Your task to perform on an android device: Clear the cart on bestbuy. Image 0: 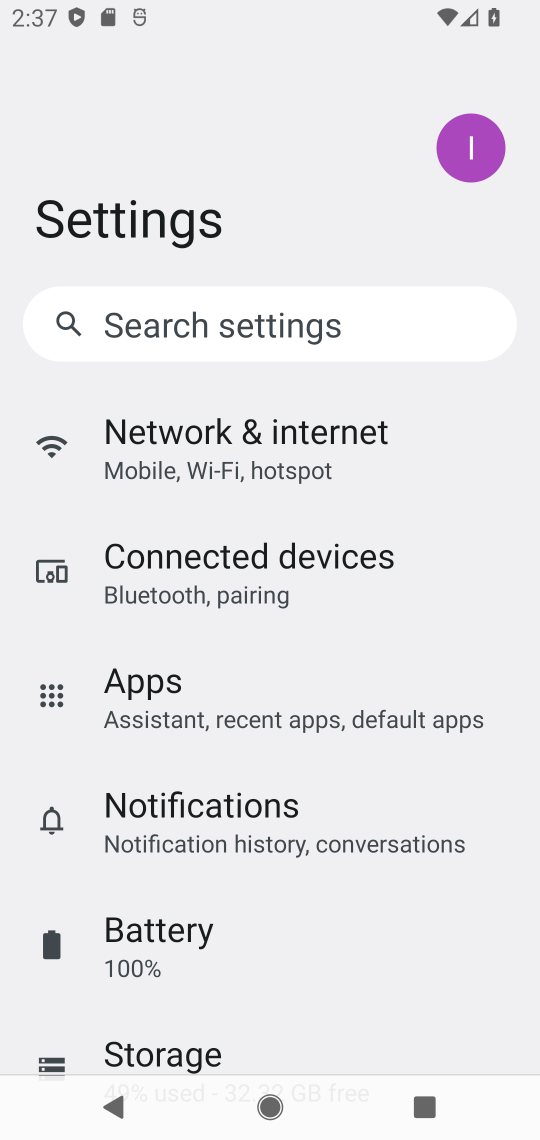
Step 0: press home button
Your task to perform on an android device: Clear the cart on bestbuy. Image 1: 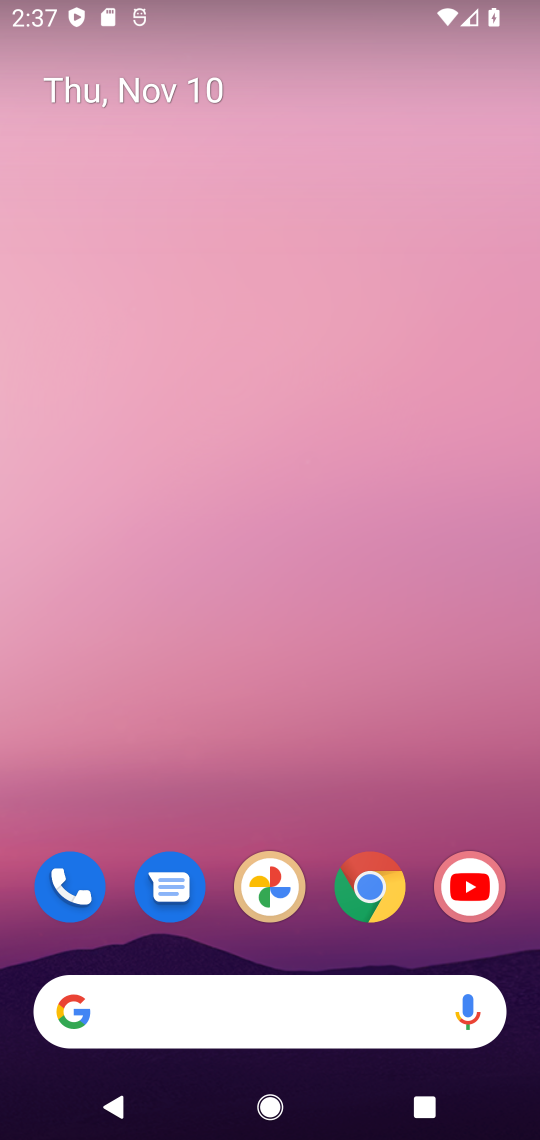
Step 1: drag from (319, 964) to (467, 0)
Your task to perform on an android device: Clear the cart on bestbuy. Image 2: 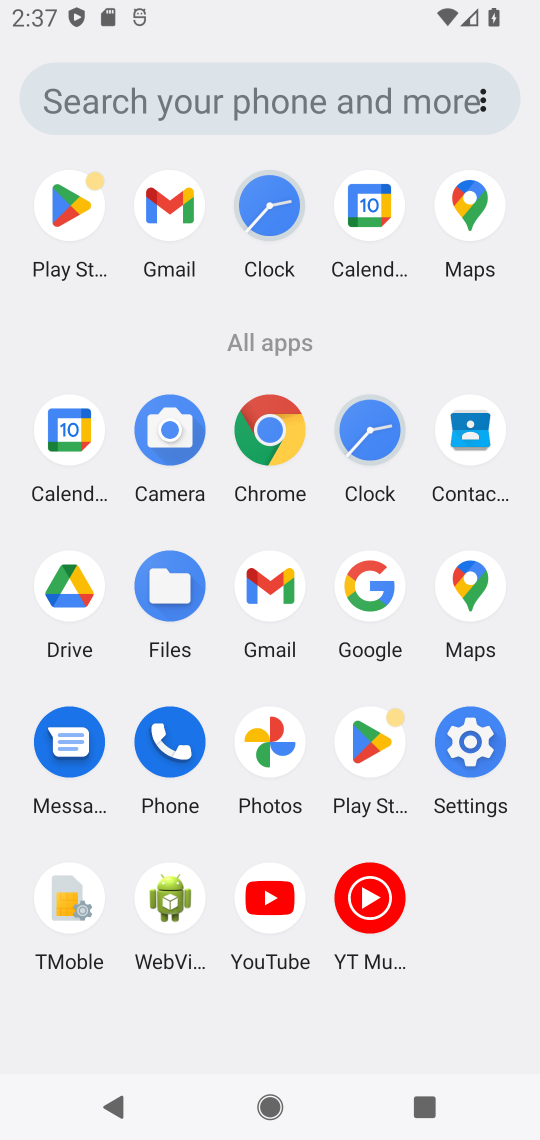
Step 2: click (271, 430)
Your task to perform on an android device: Clear the cart on bestbuy. Image 3: 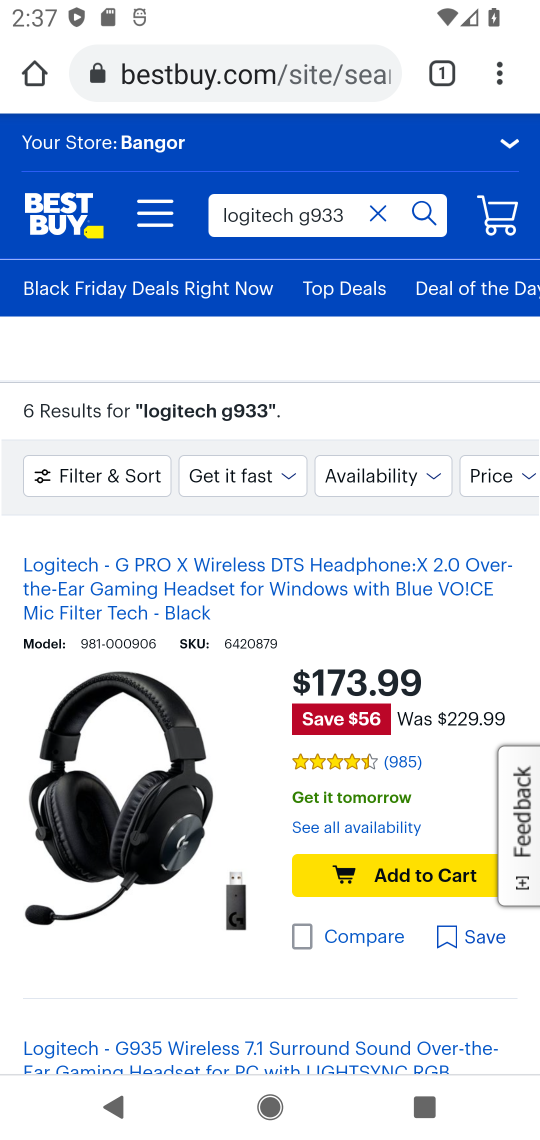
Step 3: click (309, 69)
Your task to perform on an android device: Clear the cart on bestbuy. Image 4: 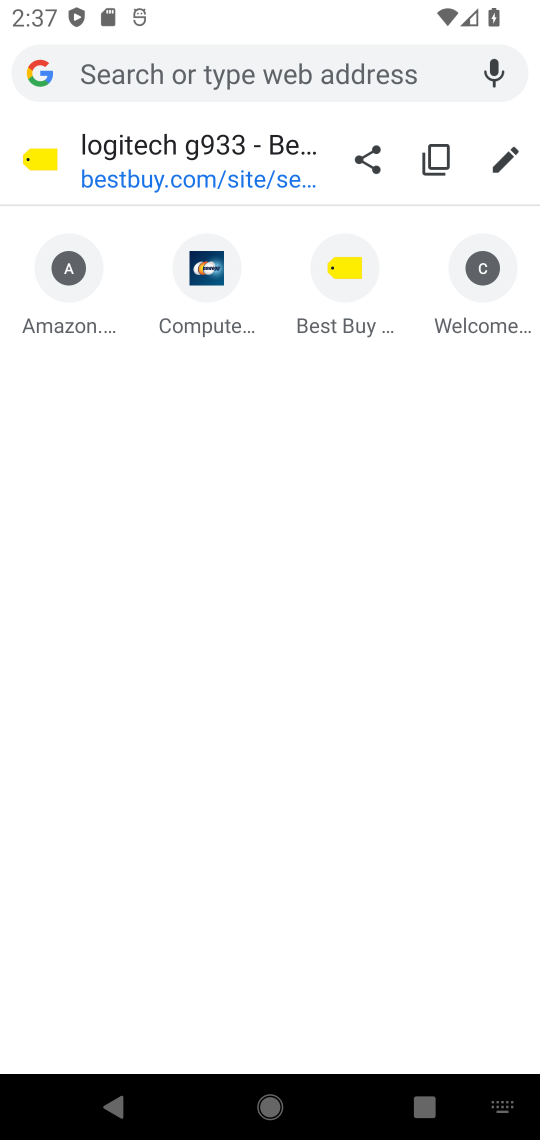
Step 4: type "bestbuy.com"
Your task to perform on an android device: Clear the cart on bestbuy. Image 5: 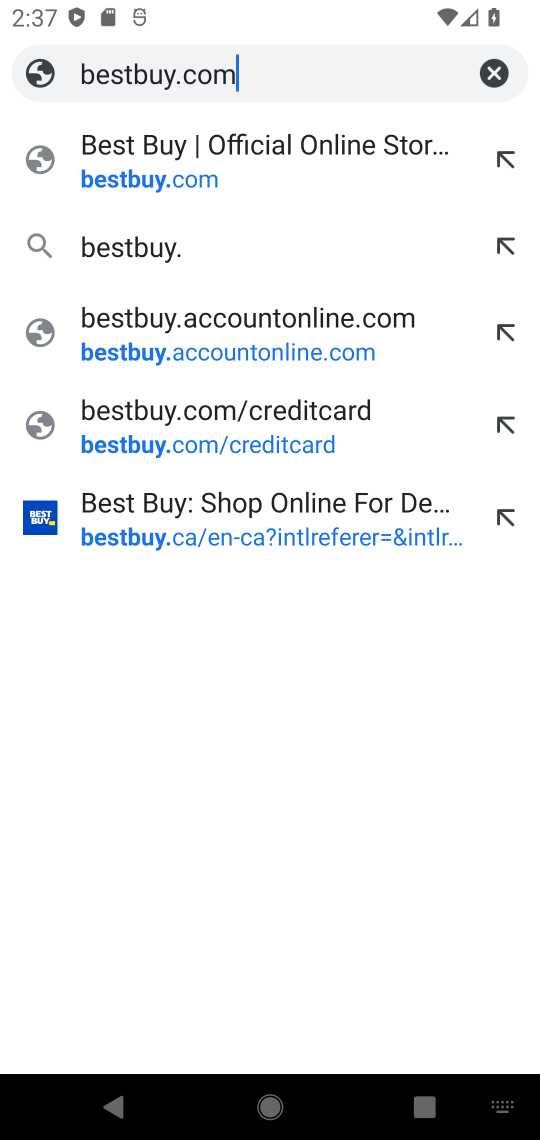
Step 5: press enter
Your task to perform on an android device: Clear the cart on bestbuy. Image 6: 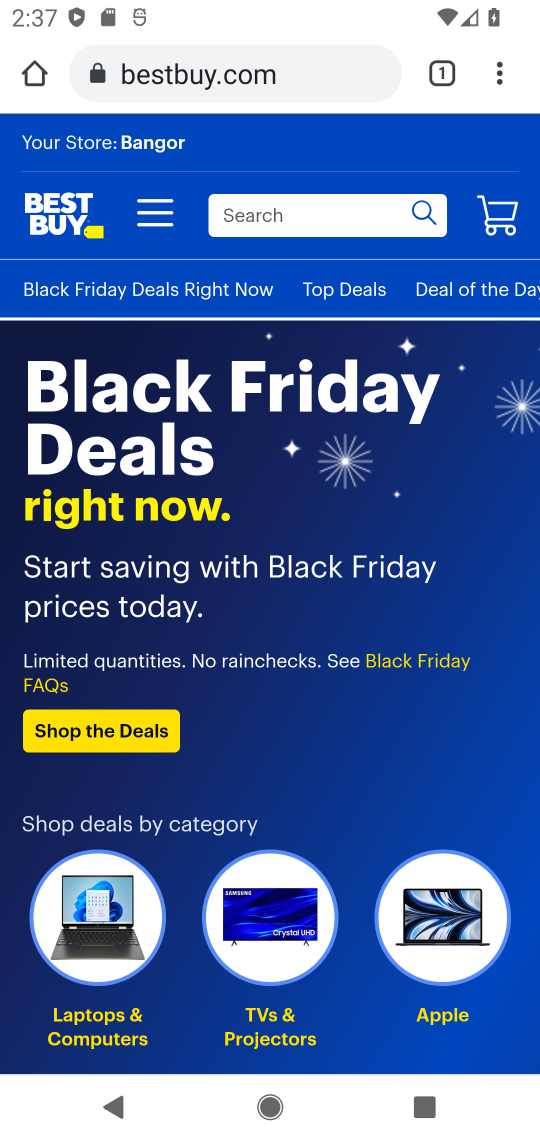
Step 6: click (505, 232)
Your task to perform on an android device: Clear the cart on bestbuy. Image 7: 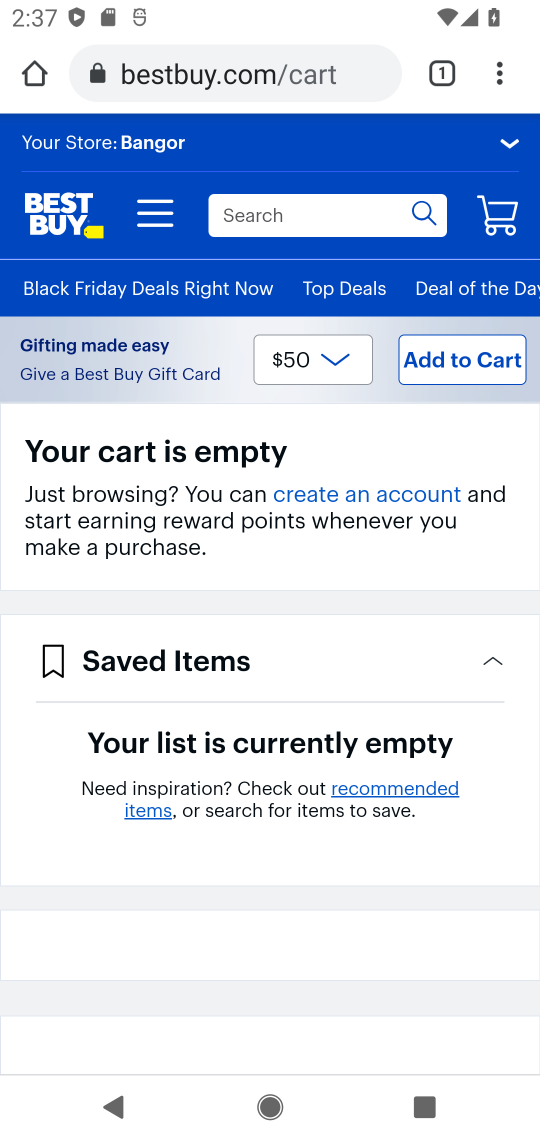
Step 7: task complete